Your task to perform on an android device: Go to settings Image 0: 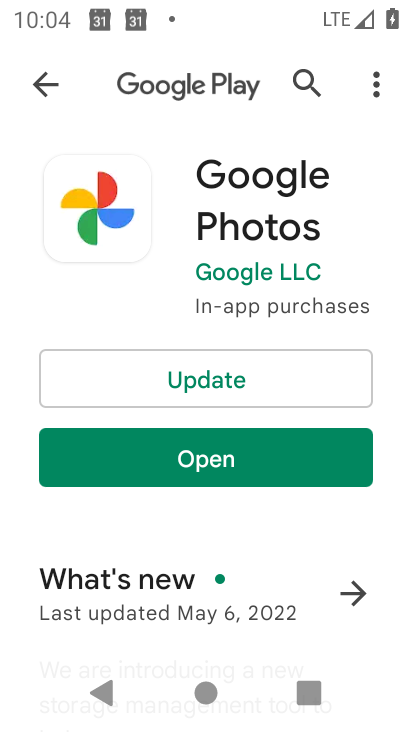
Step 0: press home button
Your task to perform on an android device: Go to settings Image 1: 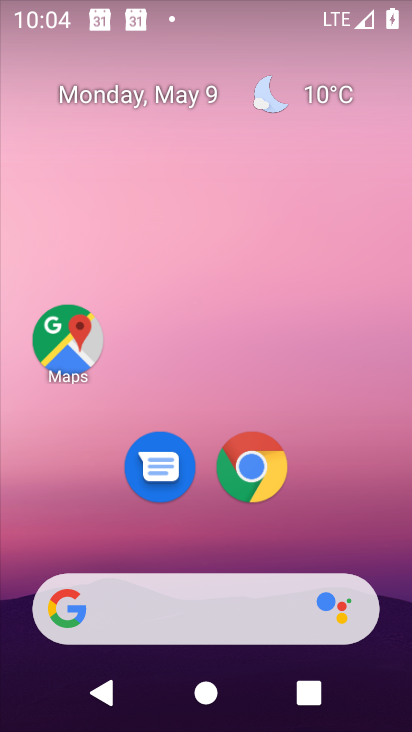
Step 1: drag from (346, 549) to (303, 6)
Your task to perform on an android device: Go to settings Image 2: 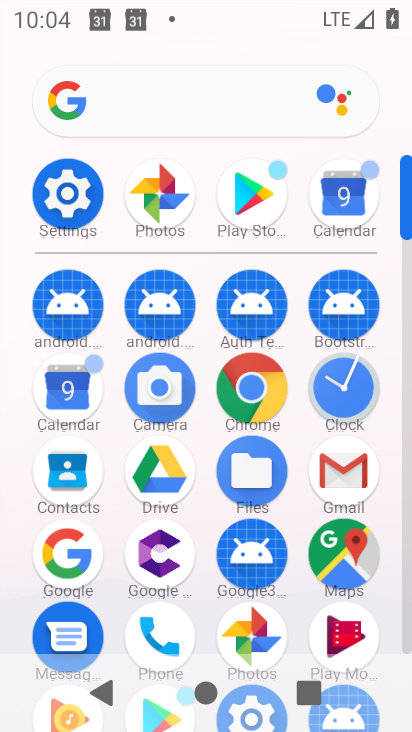
Step 2: click (67, 191)
Your task to perform on an android device: Go to settings Image 3: 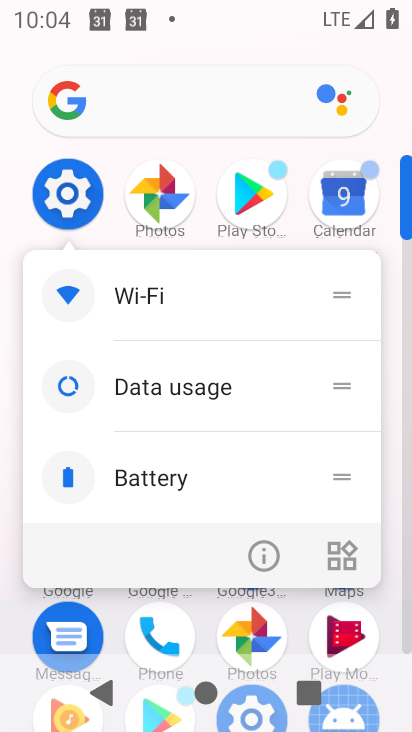
Step 3: click (66, 192)
Your task to perform on an android device: Go to settings Image 4: 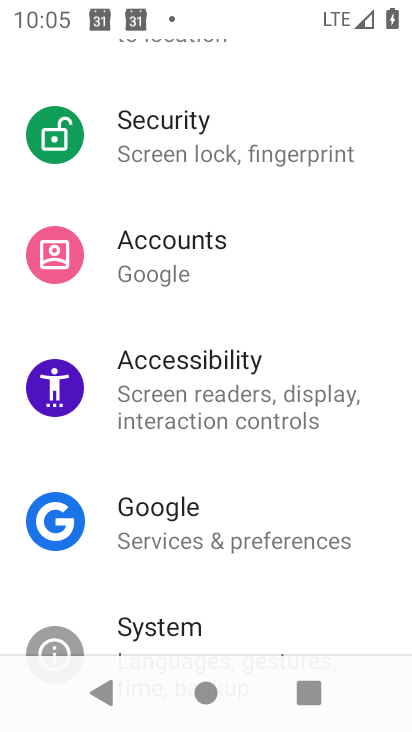
Step 4: task complete